Your task to perform on an android device: Go to Amazon Image 0: 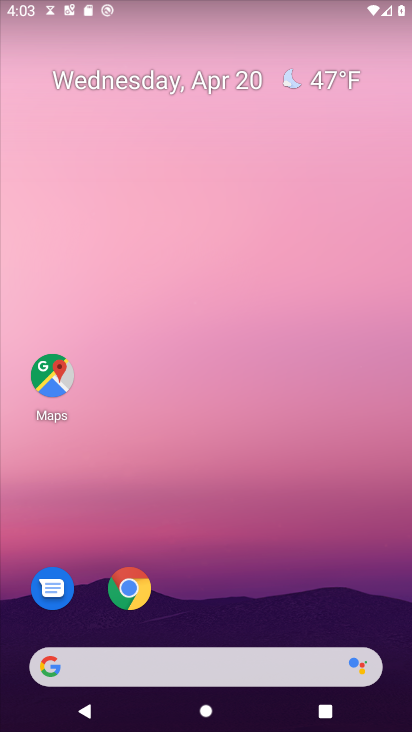
Step 0: click (122, 594)
Your task to perform on an android device: Go to Amazon Image 1: 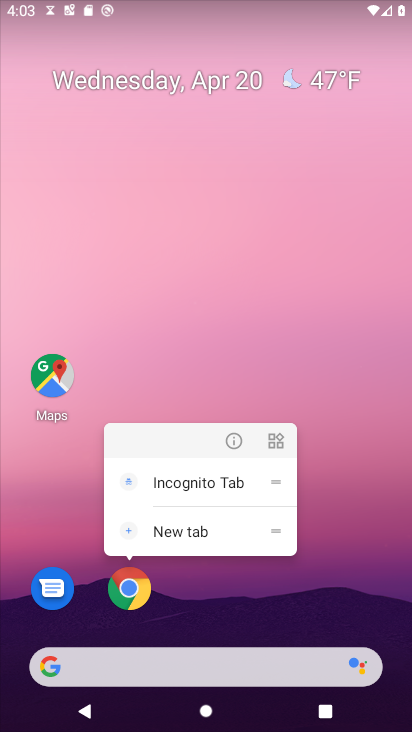
Step 1: click (133, 574)
Your task to perform on an android device: Go to Amazon Image 2: 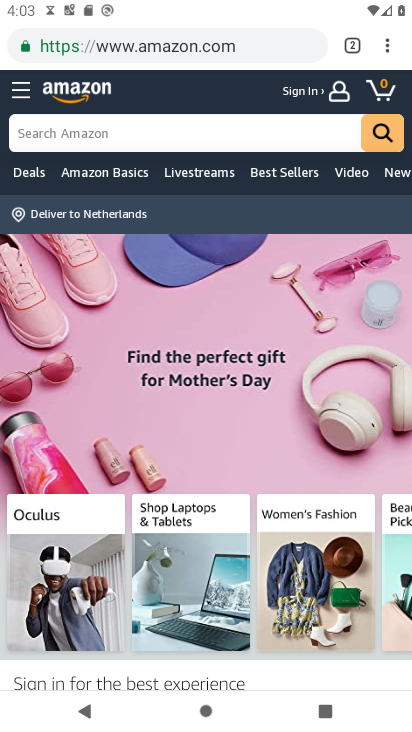
Step 2: task complete